Your task to perform on an android device: turn on airplane mode Image 0: 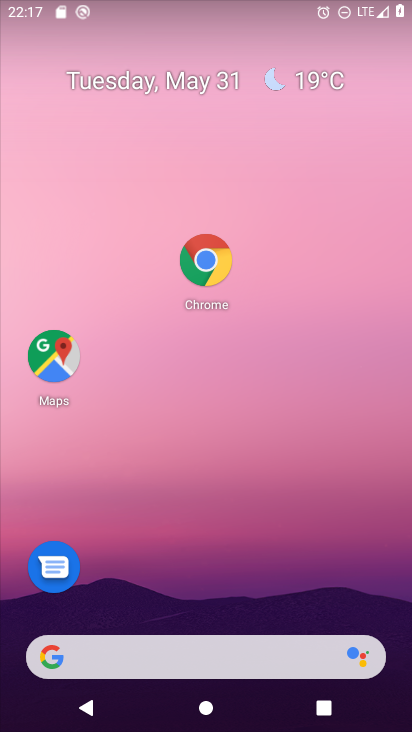
Step 0: drag from (187, 634) to (294, 203)
Your task to perform on an android device: turn on airplane mode Image 1: 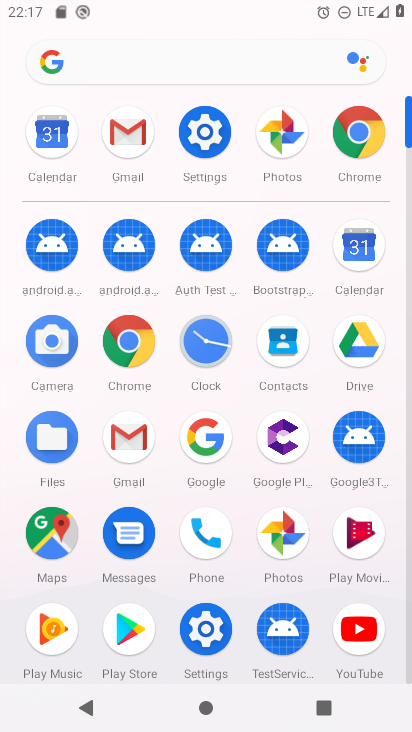
Step 1: click (219, 138)
Your task to perform on an android device: turn on airplane mode Image 2: 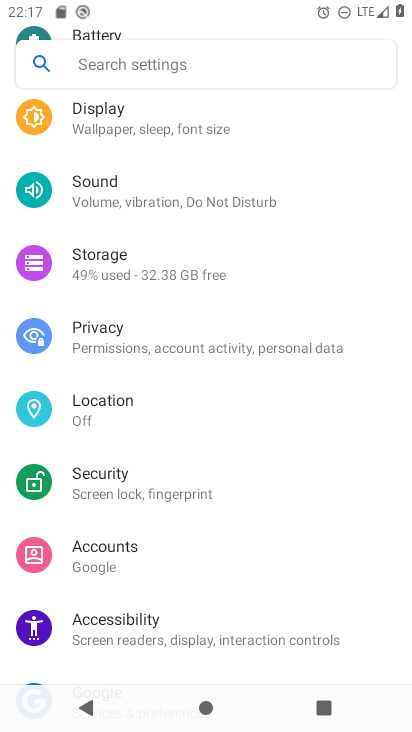
Step 2: drag from (192, 131) to (104, 542)
Your task to perform on an android device: turn on airplane mode Image 3: 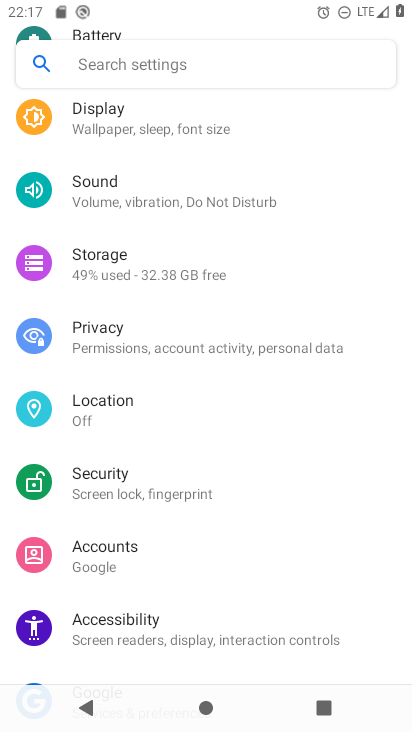
Step 3: drag from (245, 116) to (176, 480)
Your task to perform on an android device: turn on airplane mode Image 4: 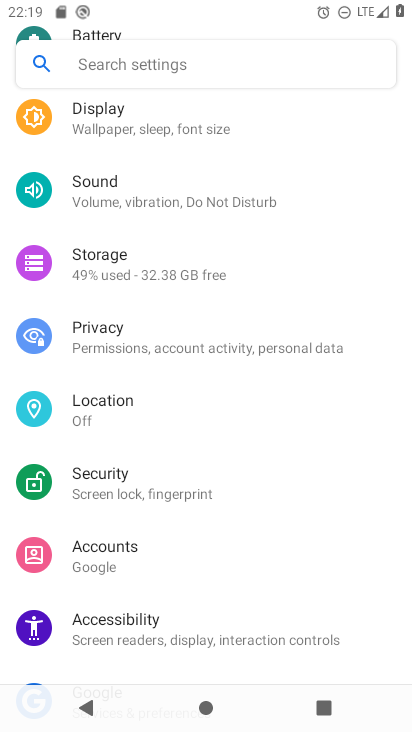
Step 4: drag from (158, 128) to (160, 556)
Your task to perform on an android device: turn on airplane mode Image 5: 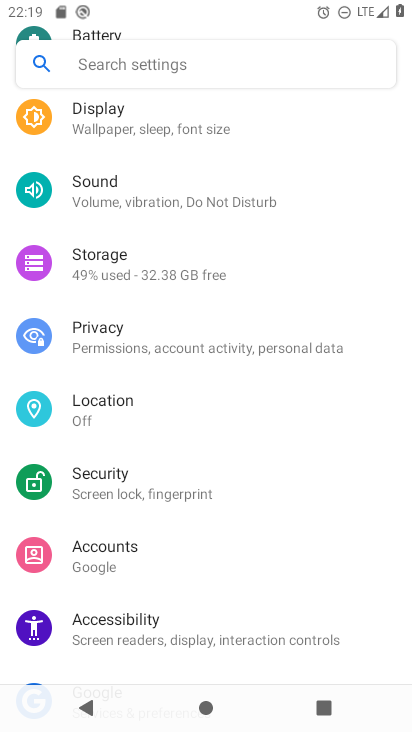
Step 5: drag from (267, 13) to (231, 559)
Your task to perform on an android device: turn on airplane mode Image 6: 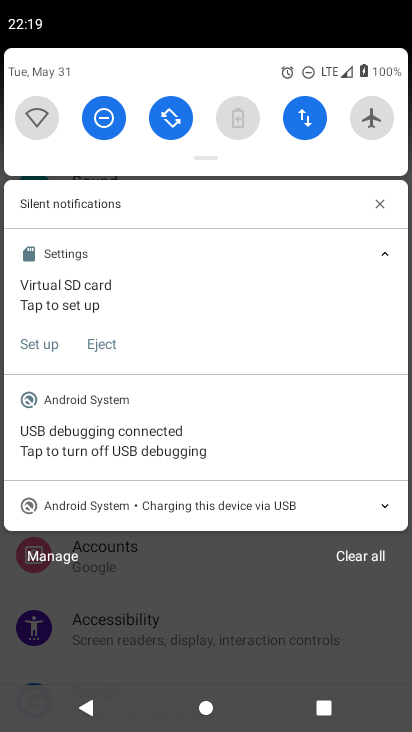
Step 6: click (379, 120)
Your task to perform on an android device: turn on airplane mode Image 7: 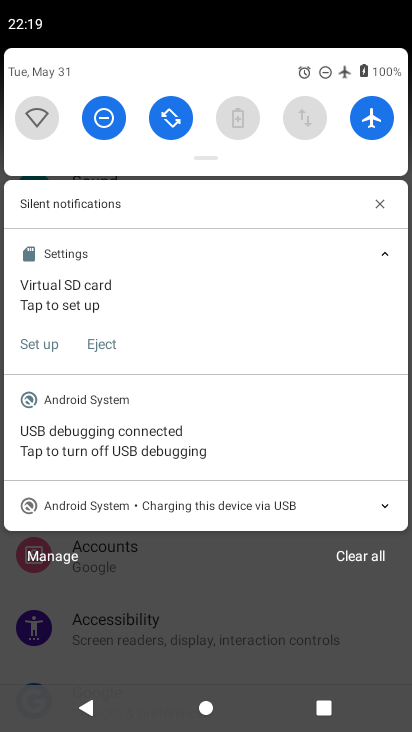
Step 7: task complete